Your task to perform on an android device: turn off priority inbox in the gmail app Image 0: 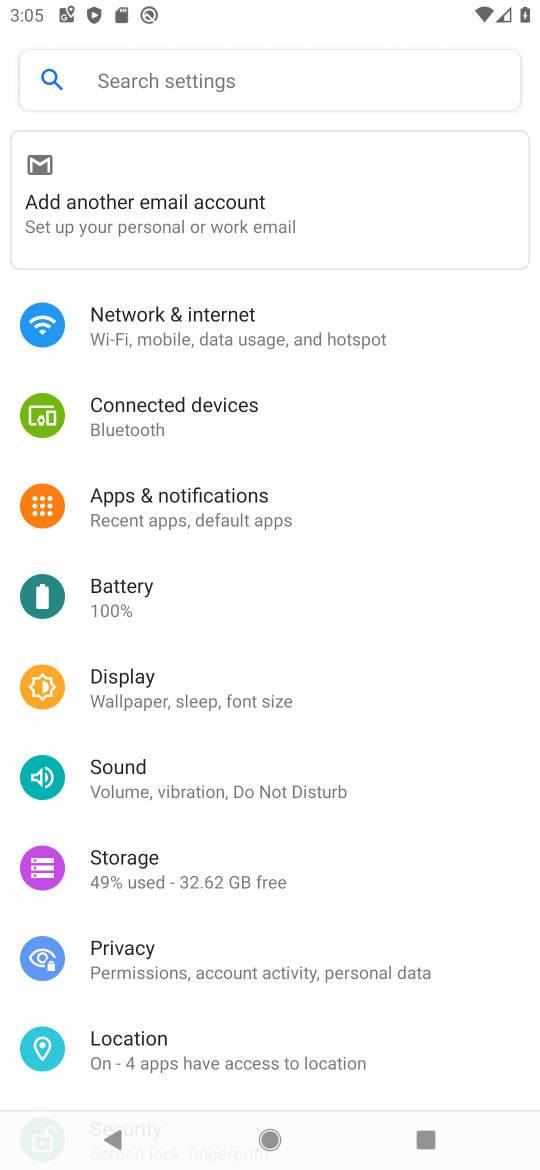
Step 0: task complete